Your task to perform on an android device: Open Amazon Image 0: 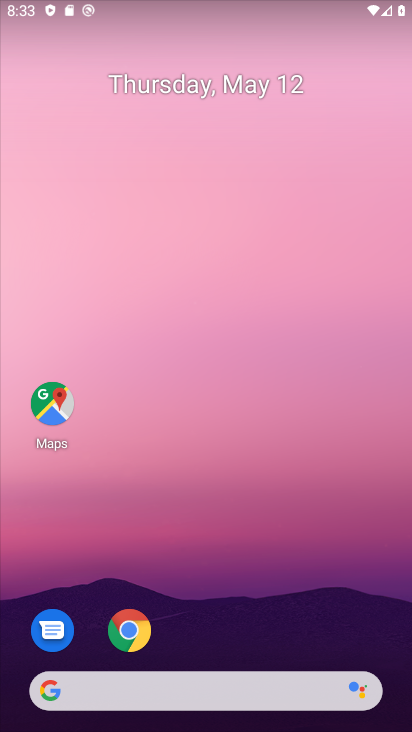
Step 0: drag from (267, 557) to (252, 464)
Your task to perform on an android device: Open Amazon Image 1: 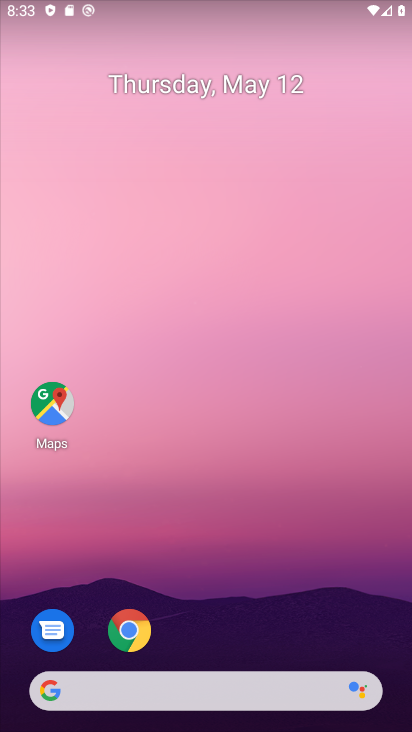
Step 1: click (115, 623)
Your task to perform on an android device: Open Amazon Image 2: 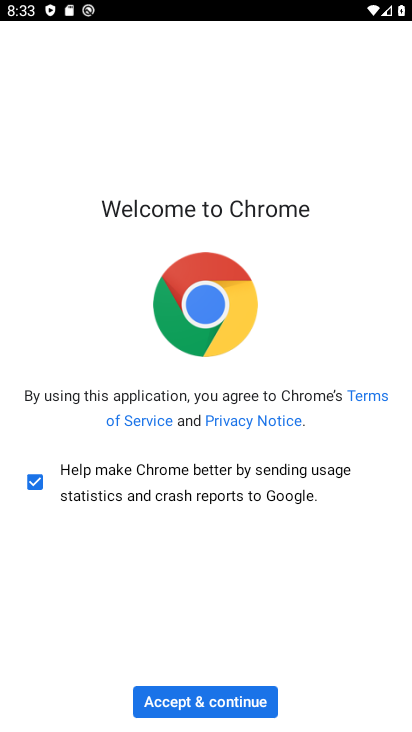
Step 2: click (224, 697)
Your task to perform on an android device: Open Amazon Image 3: 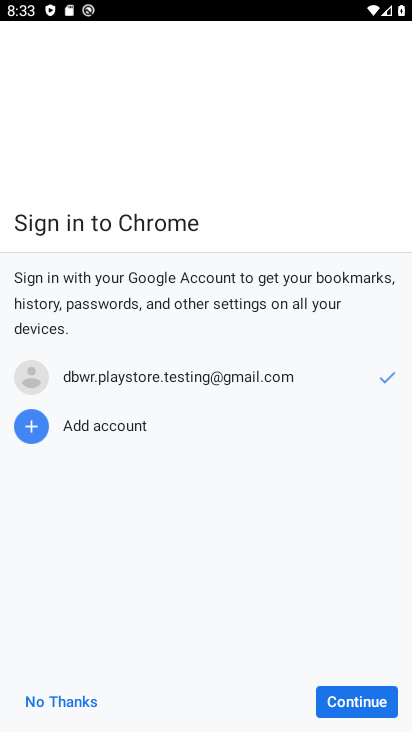
Step 3: click (350, 687)
Your task to perform on an android device: Open Amazon Image 4: 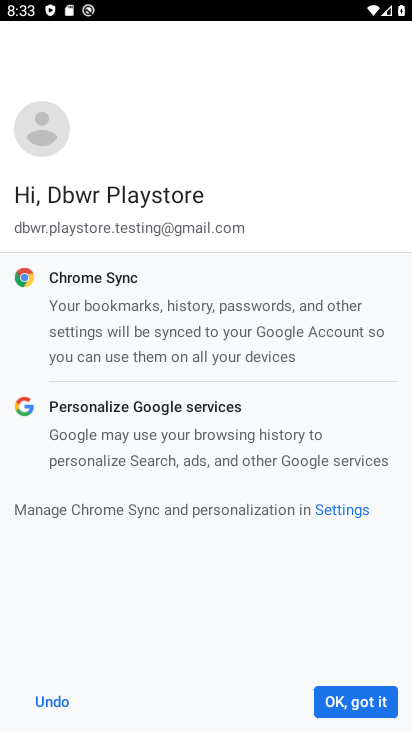
Step 4: click (350, 699)
Your task to perform on an android device: Open Amazon Image 5: 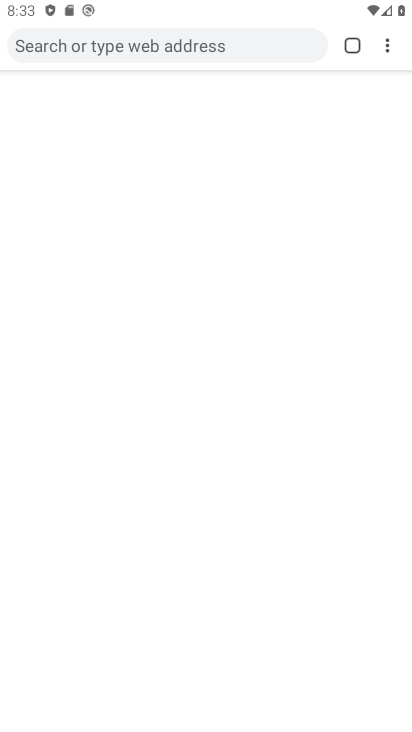
Step 5: click (350, 699)
Your task to perform on an android device: Open Amazon Image 6: 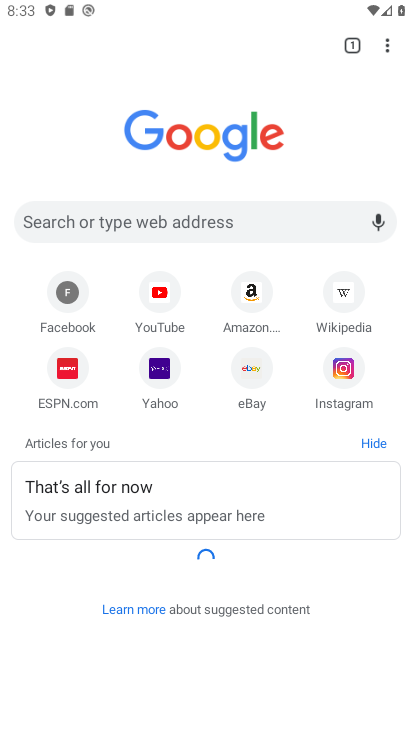
Step 6: click (249, 297)
Your task to perform on an android device: Open Amazon Image 7: 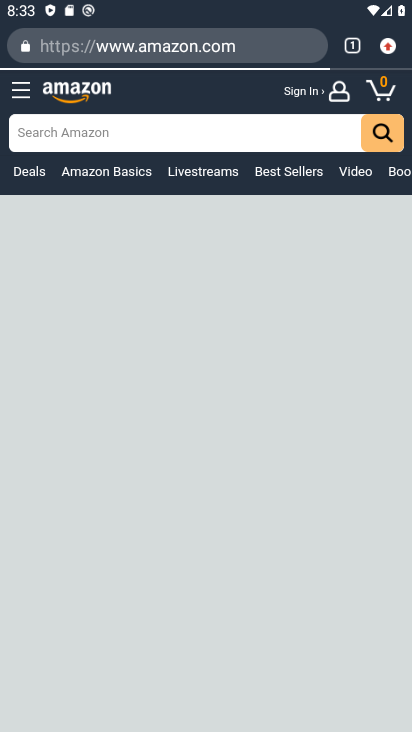
Step 7: task complete